Your task to perform on an android device: turn off location Image 0: 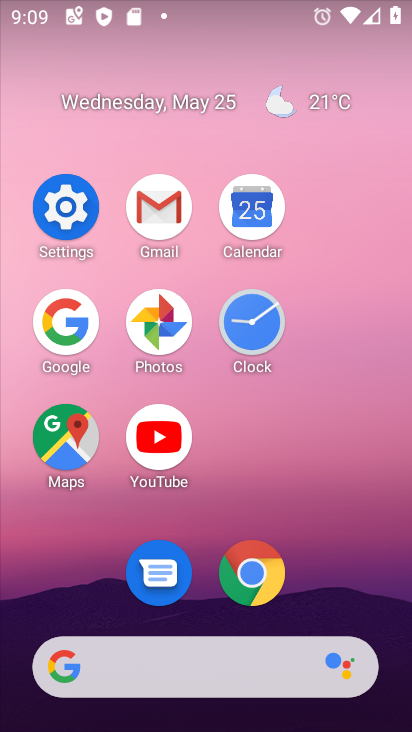
Step 0: click (47, 218)
Your task to perform on an android device: turn off location Image 1: 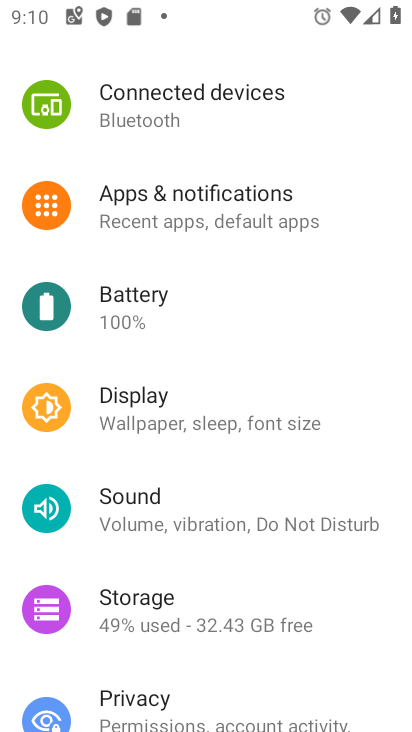
Step 1: drag from (243, 622) to (205, 193)
Your task to perform on an android device: turn off location Image 2: 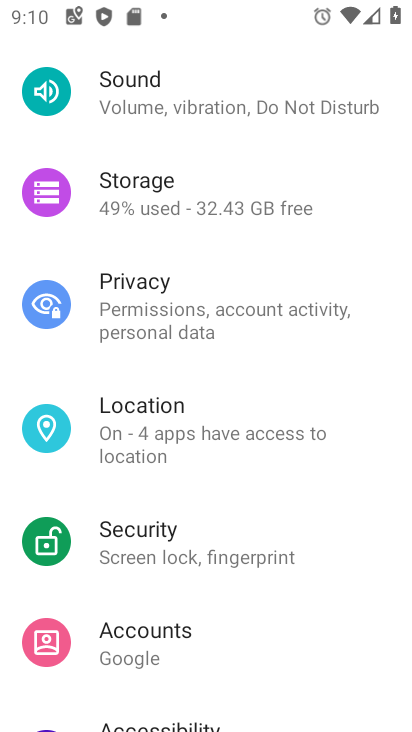
Step 2: click (174, 434)
Your task to perform on an android device: turn off location Image 3: 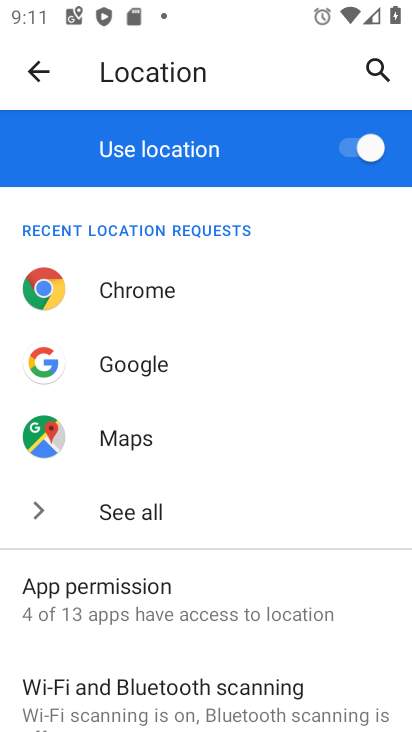
Step 3: drag from (224, 640) to (241, 271)
Your task to perform on an android device: turn off location Image 4: 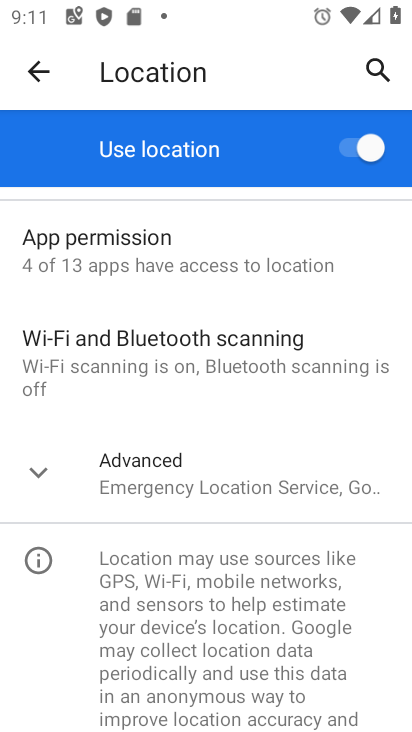
Step 4: click (366, 148)
Your task to perform on an android device: turn off location Image 5: 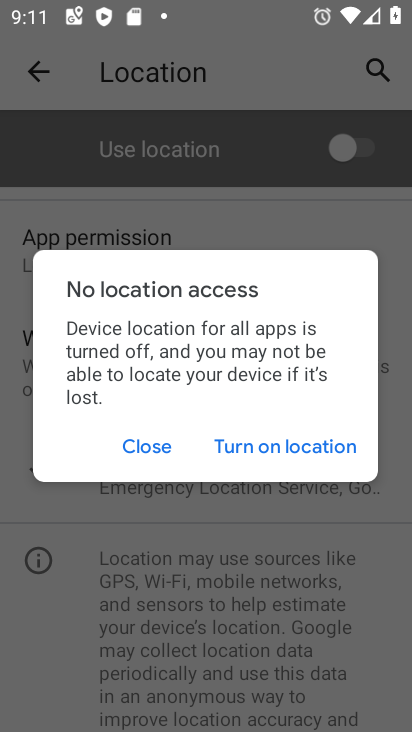
Step 5: click (147, 454)
Your task to perform on an android device: turn off location Image 6: 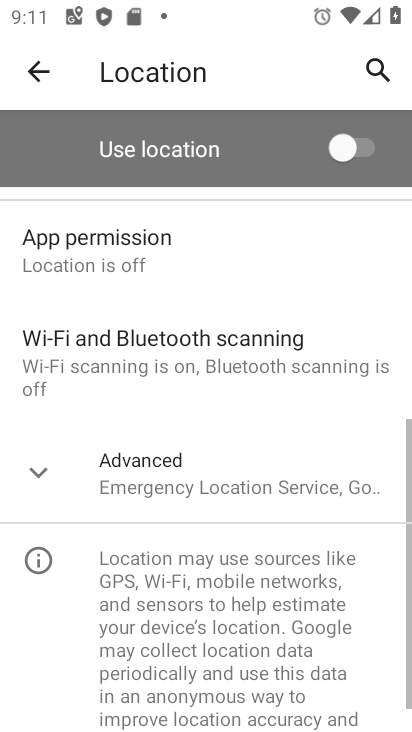
Step 6: task complete